Your task to perform on an android device: make emails show in primary in the gmail app Image 0: 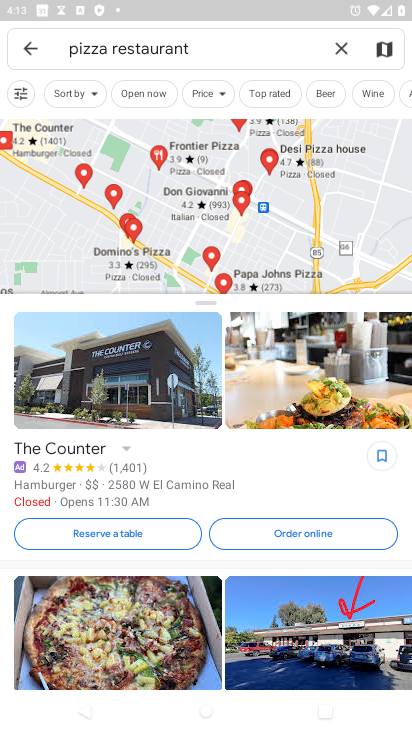
Step 0: press home button
Your task to perform on an android device: make emails show in primary in the gmail app Image 1: 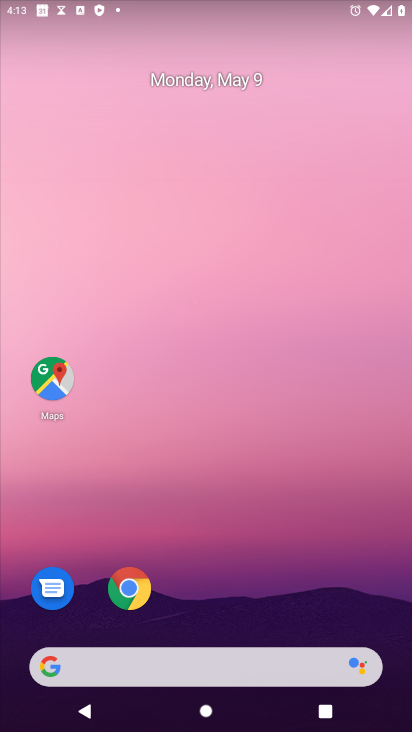
Step 1: drag from (254, 501) to (147, 79)
Your task to perform on an android device: make emails show in primary in the gmail app Image 2: 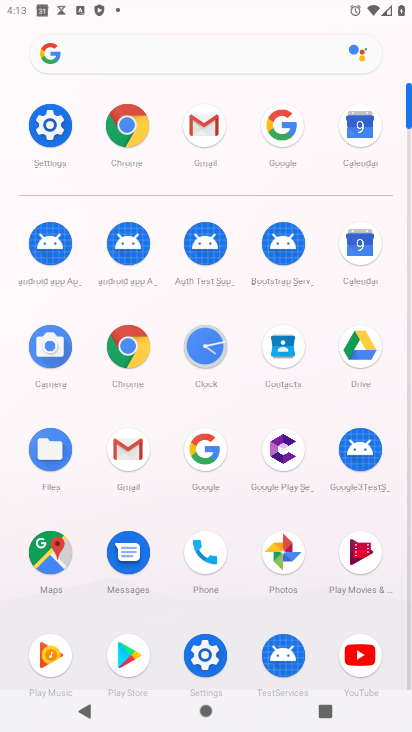
Step 2: click (133, 453)
Your task to perform on an android device: make emails show in primary in the gmail app Image 3: 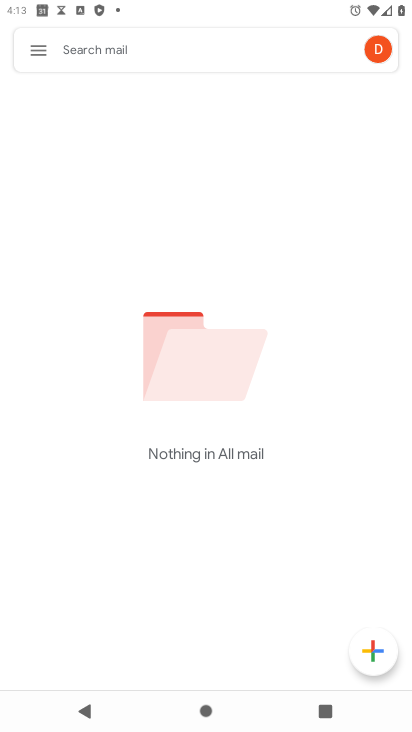
Step 3: click (38, 46)
Your task to perform on an android device: make emails show in primary in the gmail app Image 4: 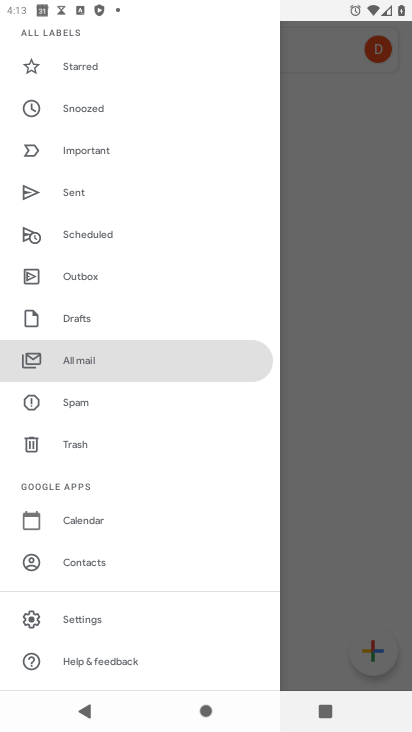
Step 4: drag from (171, 186) to (107, 731)
Your task to perform on an android device: make emails show in primary in the gmail app Image 5: 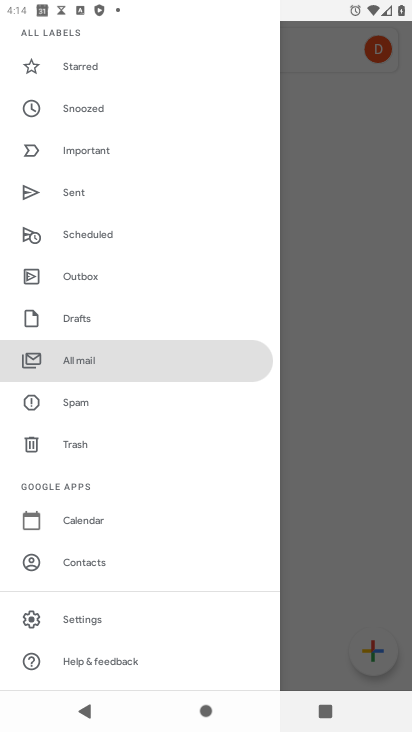
Step 5: drag from (118, 70) to (140, 724)
Your task to perform on an android device: make emails show in primary in the gmail app Image 6: 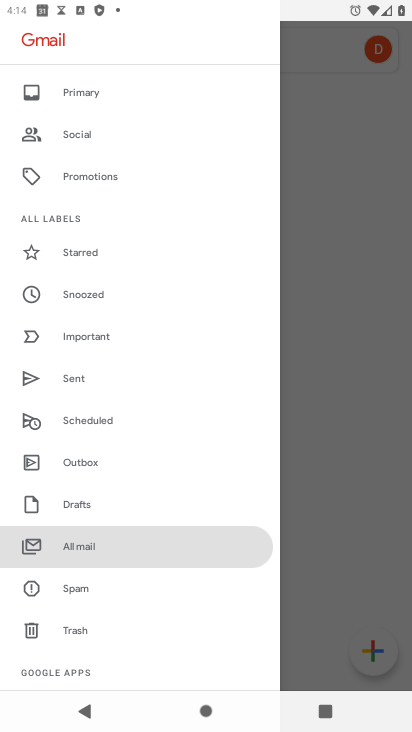
Step 6: click (72, 90)
Your task to perform on an android device: make emails show in primary in the gmail app Image 7: 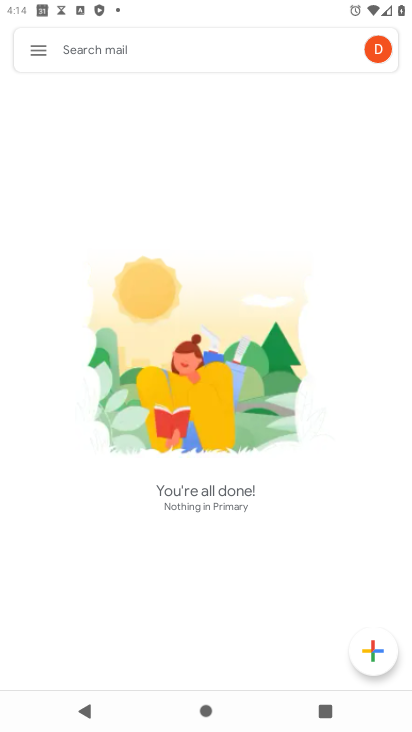
Step 7: task complete